Your task to perform on an android device: turn on showing notifications on the lock screen Image 0: 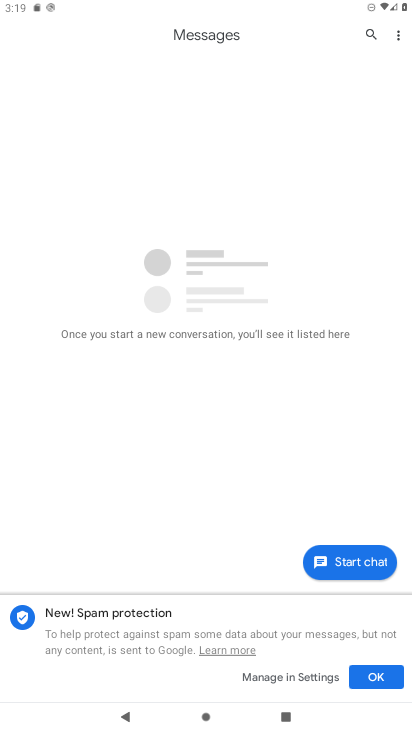
Step 0: press home button
Your task to perform on an android device: turn on showing notifications on the lock screen Image 1: 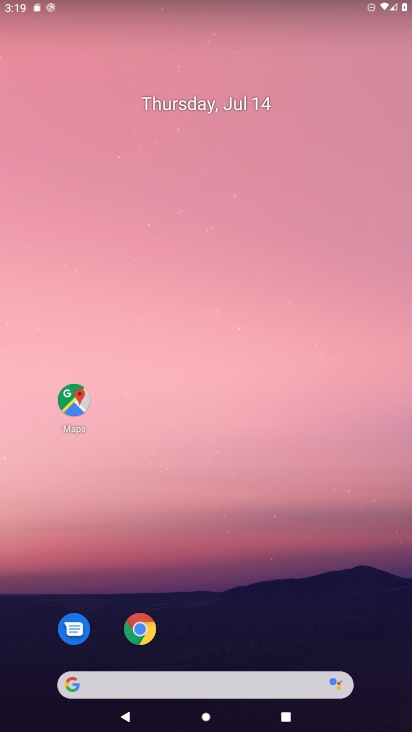
Step 1: press home button
Your task to perform on an android device: turn on showing notifications on the lock screen Image 2: 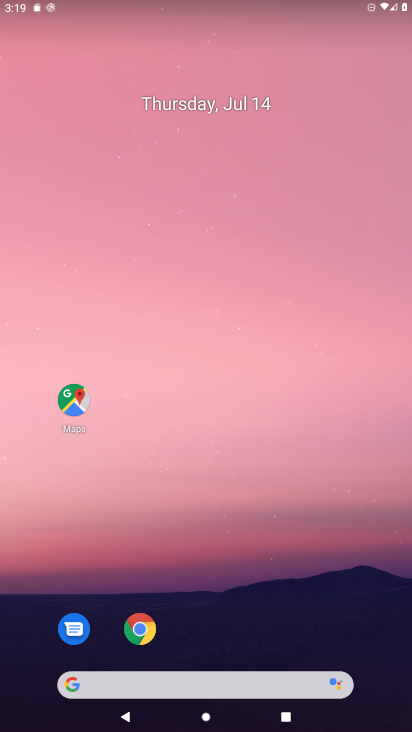
Step 2: drag from (255, 643) to (230, 42)
Your task to perform on an android device: turn on showing notifications on the lock screen Image 3: 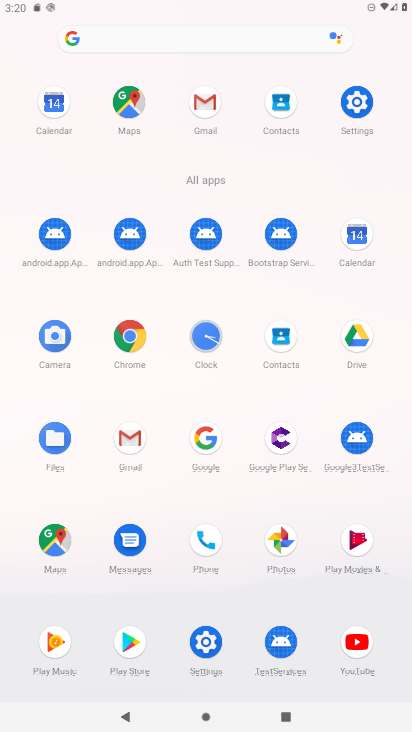
Step 3: click (347, 101)
Your task to perform on an android device: turn on showing notifications on the lock screen Image 4: 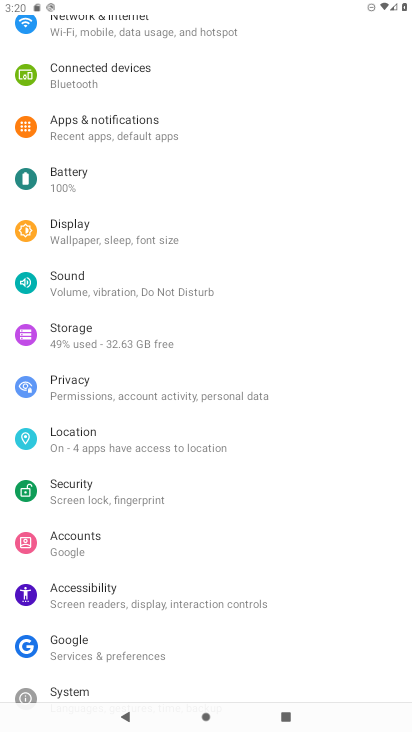
Step 4: click (106, 116)
Your task to perform on an android device: turn on showing notifications on the lock screen Image 5: 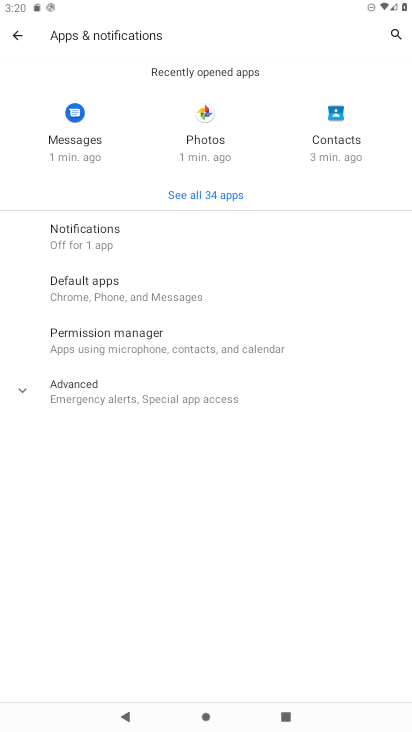
Step 5: click (124, 236)
Your task to perform on an android device: turn on showing notifications on the lock screen Image 6: 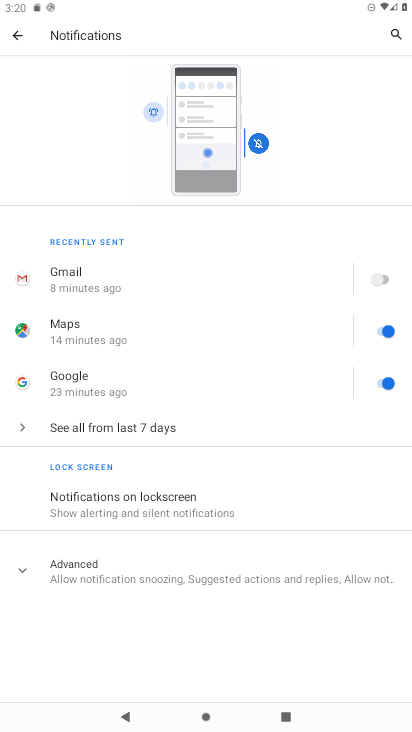
Step 6: click (163, 511)
Your task to perform on an android device: turn on showing notifications on the lock screen Image 7: 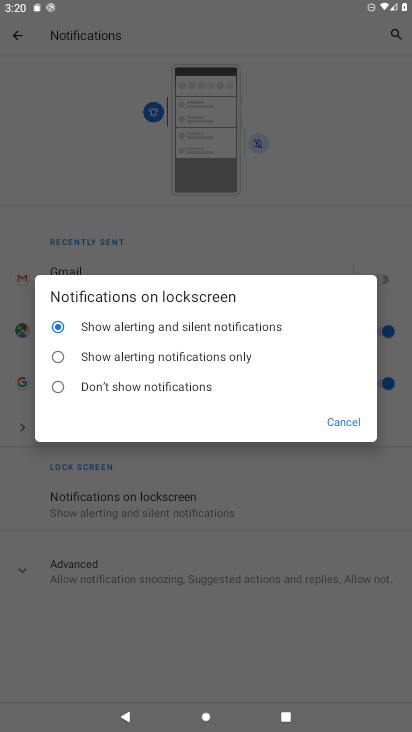
Step 7: click (54, 353)
Your task to perform on an android device: turn on showing notifications on the lock screen Image 8: 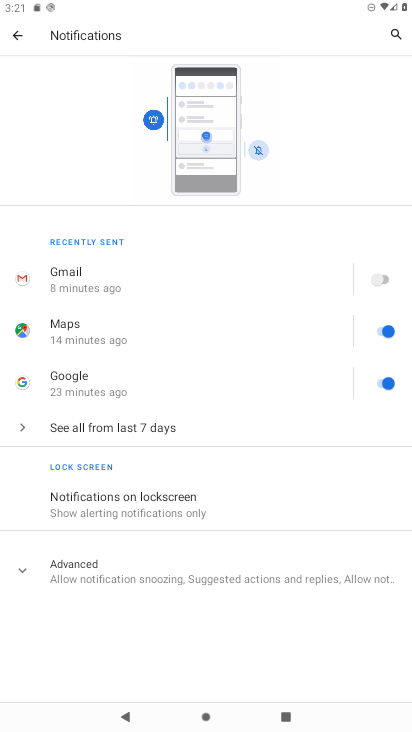
Step 8: task complete